Your task to perform on an android device: Go to Reddit.com Image 0: 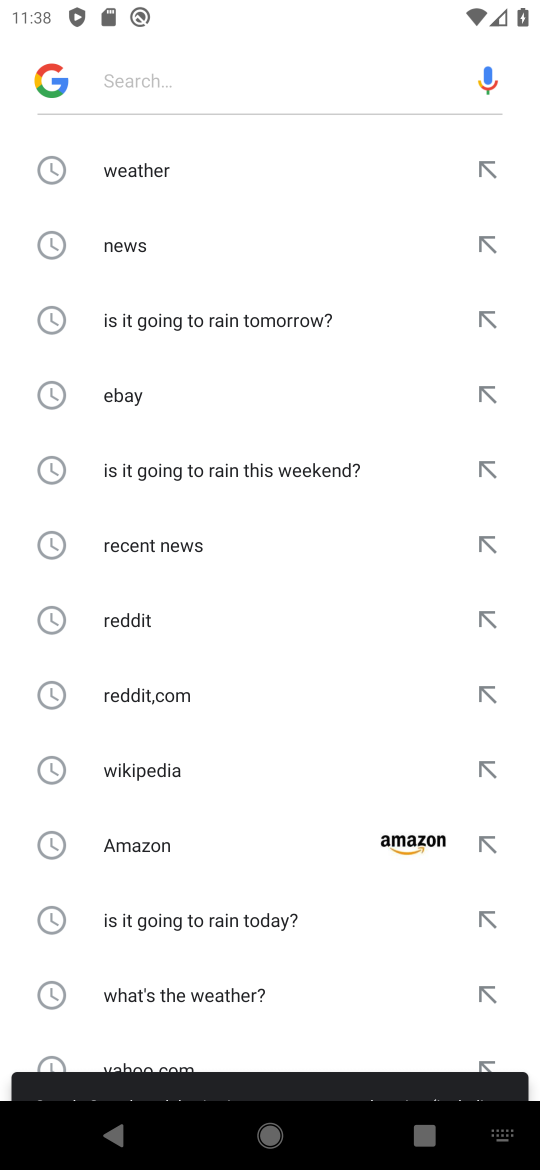
Step 0: press home button
Your task to perform on an android device: Go to Reddit.com Image 1: 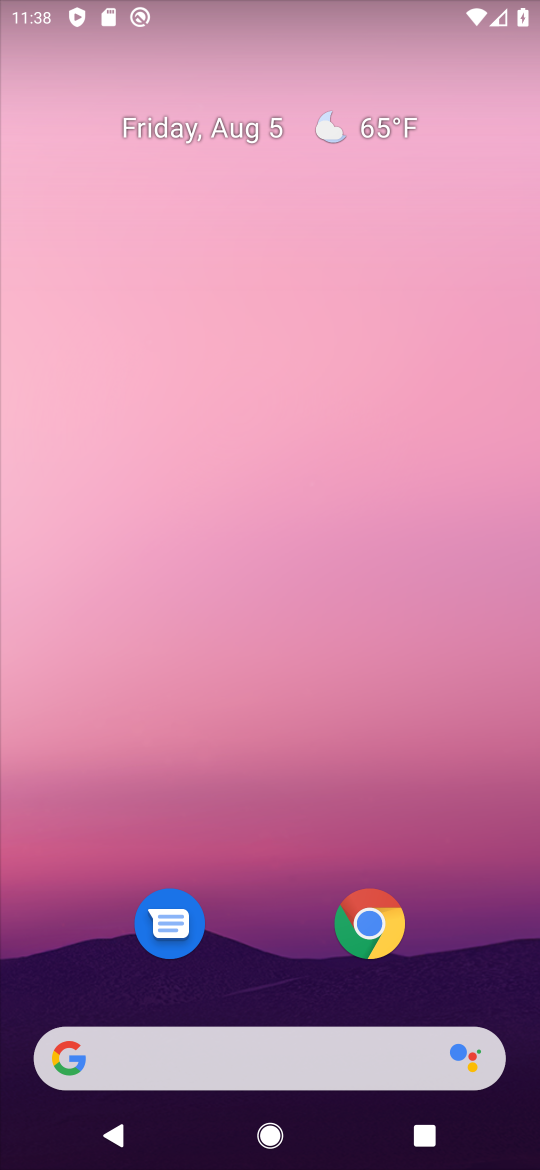
Step 1: click (373, 918)
Your task to perform on an android device: Go to Reddit.com Image 2: 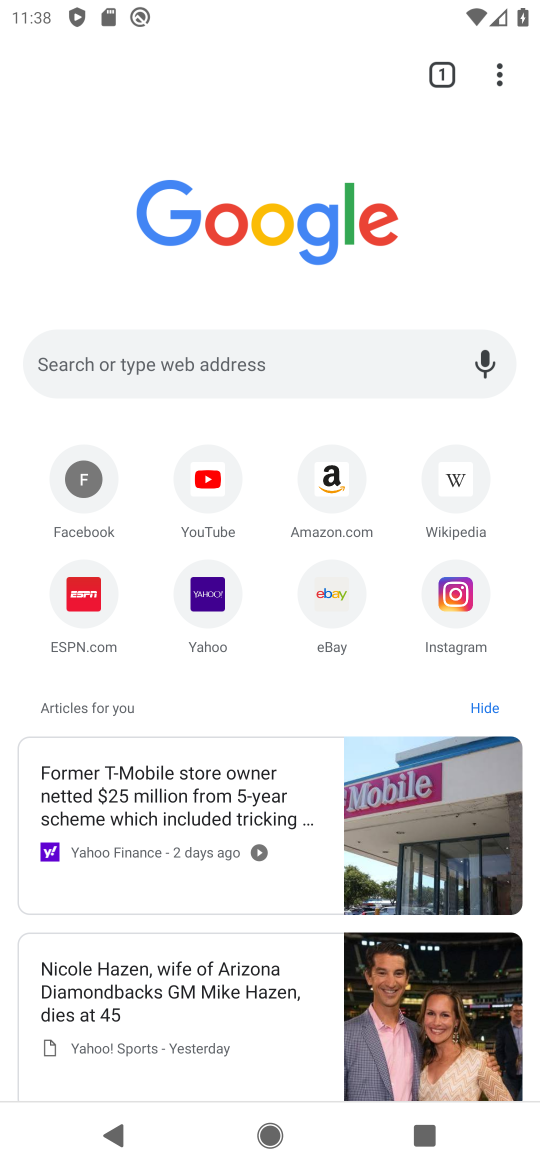
Step 2: click (272, 357)
Your task to perform on an android device: Go to Reddit.com Image 3: 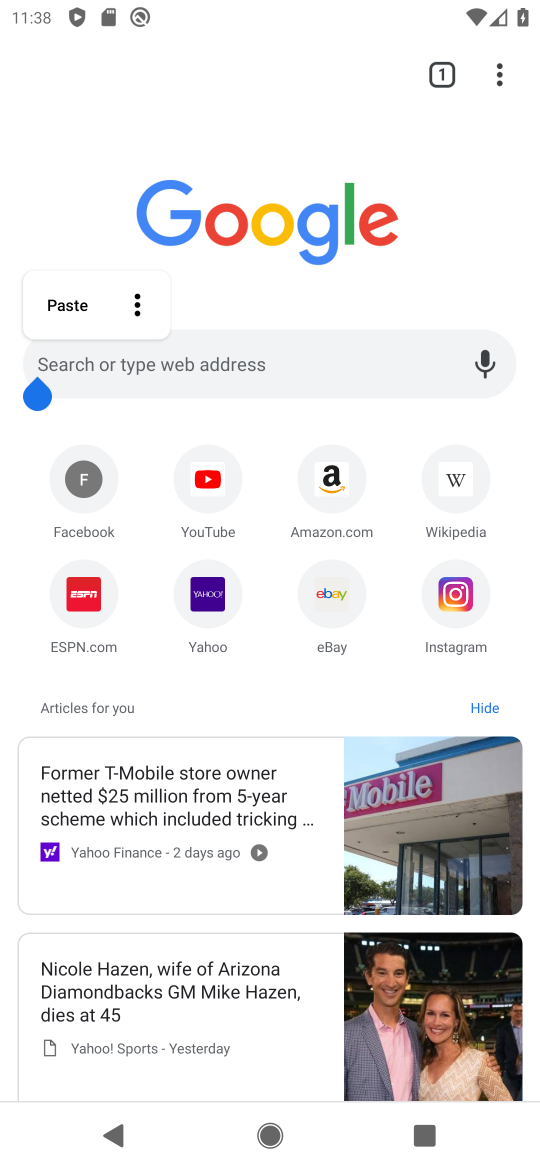
Step 3: click (97, 385)
Your task to perform on an android device: Go to Reddit.com Image 4: 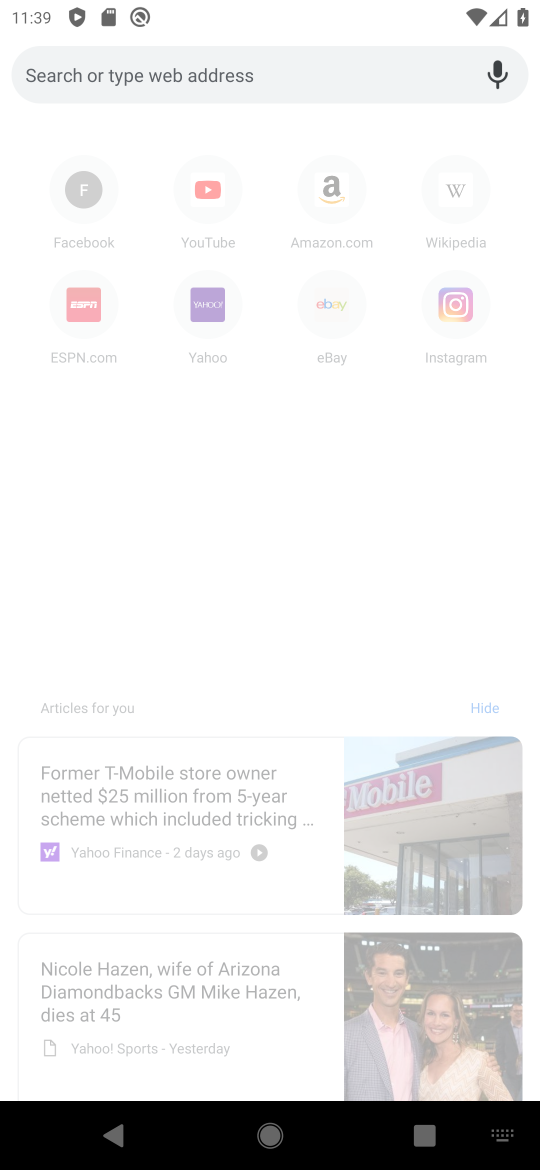
Step 4: type "Reddit.com"
Your task to perform on an android device: Go to Reddit.com Image 5: 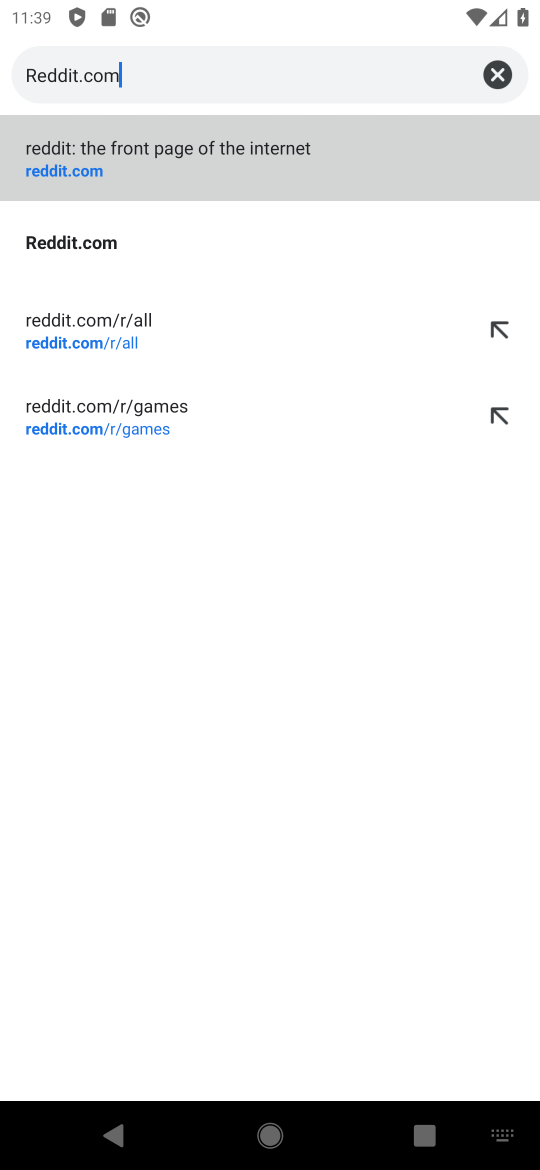
Step 5: click (76, 163)
Your task to perform on an android device: Go to Reddit.com Image 6: 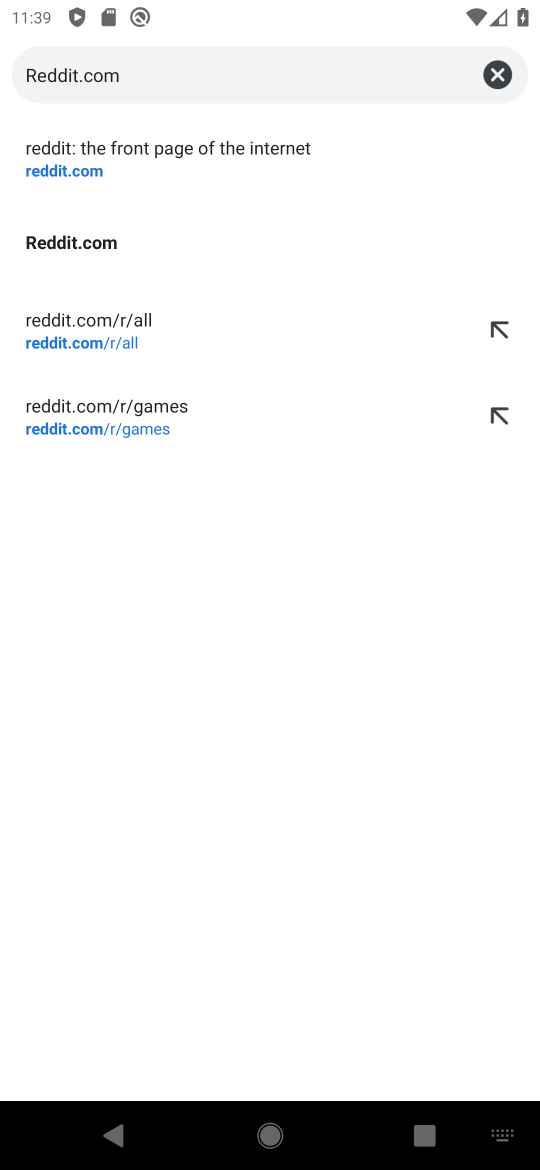
Step 6: click (71, 163)
Your task to perform on an android device: Go to Reddit.com Image 7: 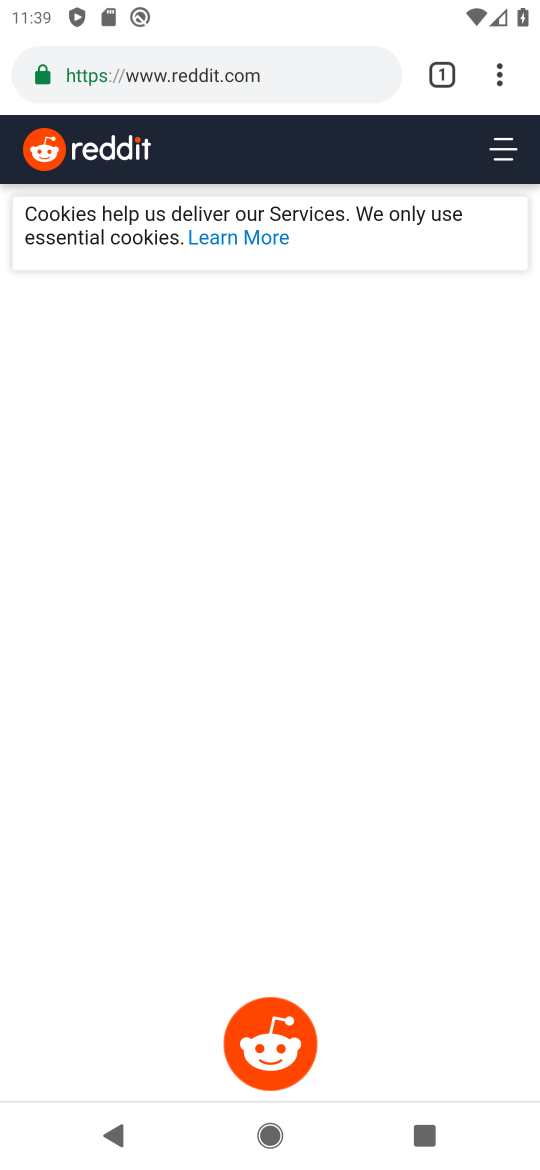
Step 7: task complete